Your task to perform on an android device: turn on notifications settings in the gmail app Image 0: 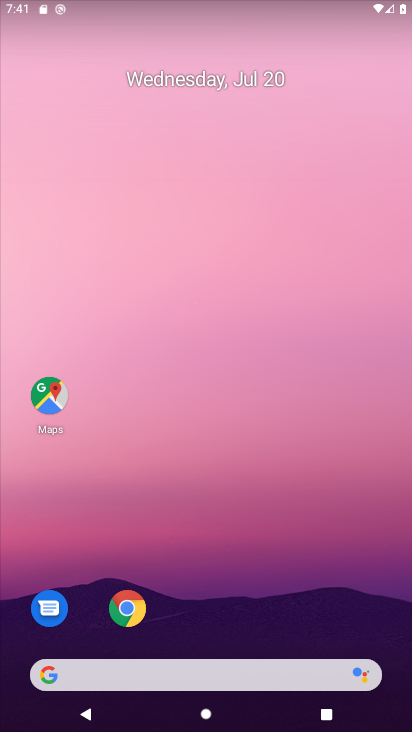
Step 0: drag from (215, 614) to (224, 207)
Your task to perform on an android device: turn on notifications settings in the gmail app Image 1: 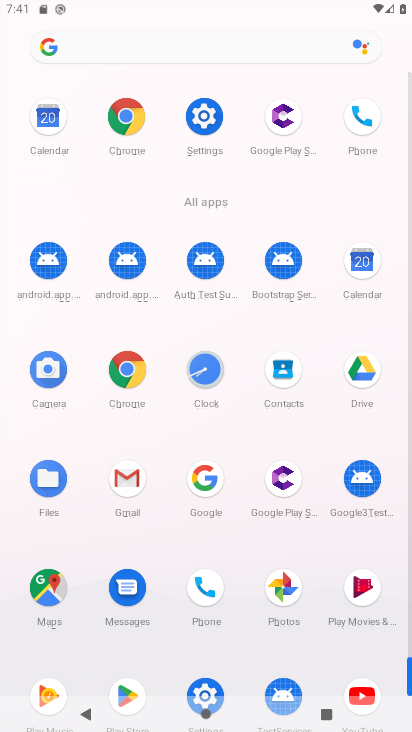
Step 1: click (122, 474)
Your task to perform on an android device: turn on notifications settings in the gmail app Image 2: 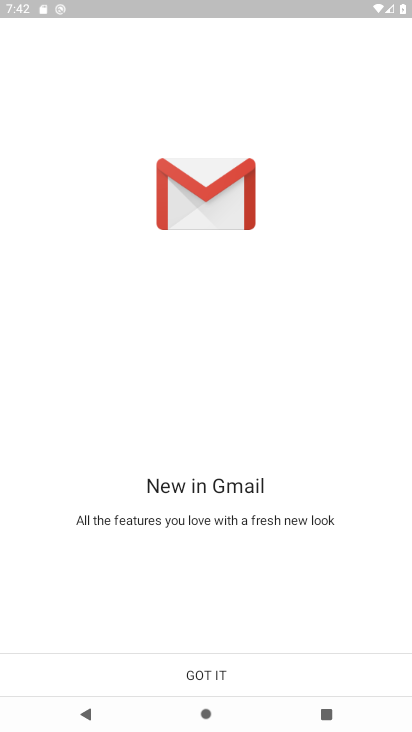
Step 2: click (227, 675)
Your task to perform on an android device: turn on notifications settings in the gmail app Image 3: 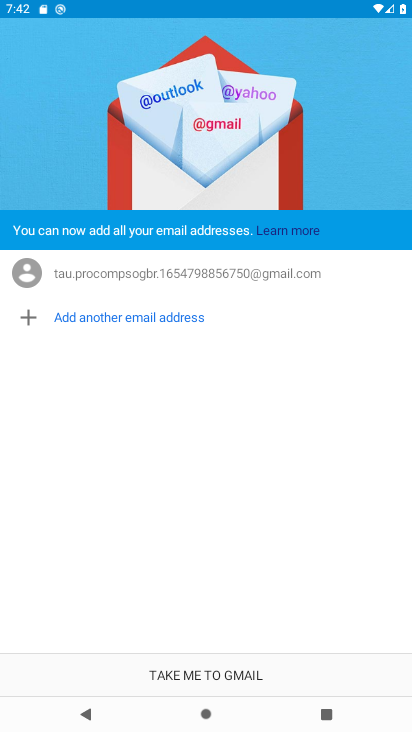
Step 3: click (214, 664)
Your task to perform on an android device: turn on notifications settings in the gmail app Image 4: 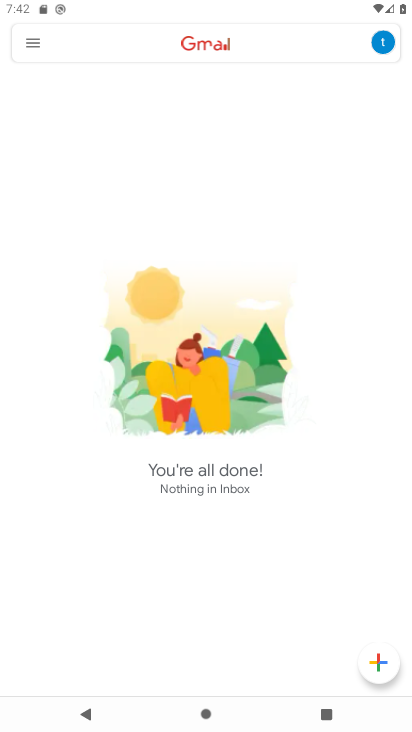
Step 4: click (30, 36)
Your task to perform on an android device: turn on notifications settings in the gmail app Image 5: 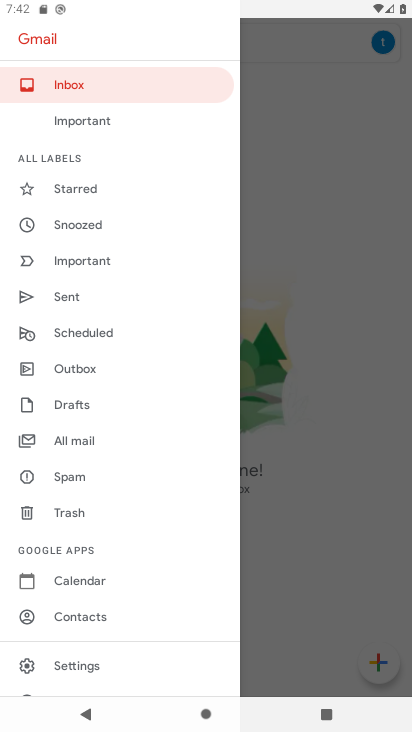
Step 5: click (105, 661)
Your task to perform on an android device: turn on notifications settings in the gmail app Image 6: 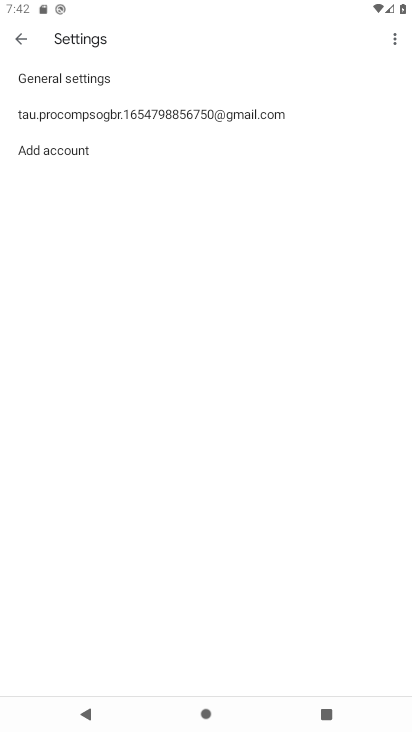
Step 6: click (111, 115)
Your task to perform on an android device: turn on notifications settings in the gmail app Image 7: 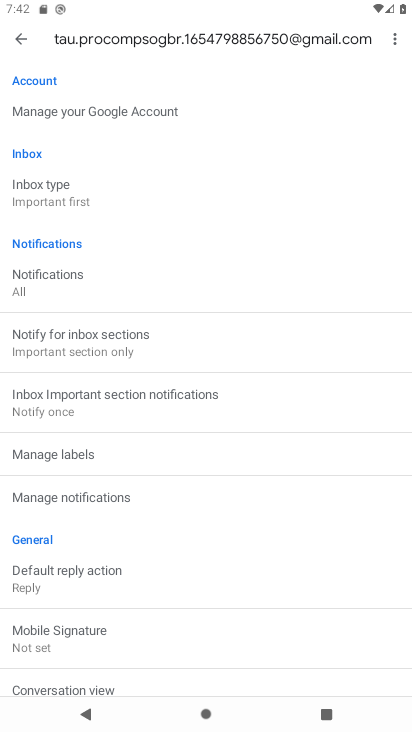
Step 7: click (61, 290)
Your task to perform on an android device: turn on notifications settings in the gmail app Image 8: 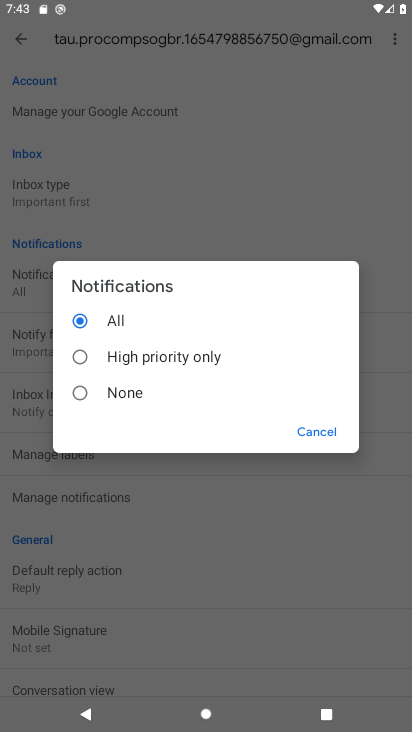
Step 8: task complete